Your task to perform on an android device: Go to accessibility settings Image 0: 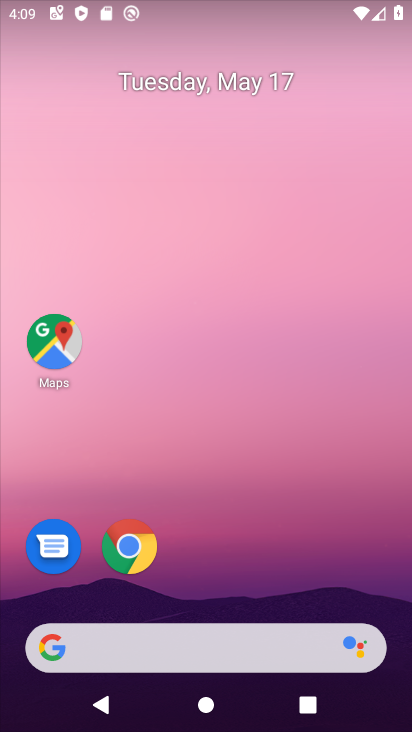
Step 0: drag from (212, 569) to (289, 205)
Your task to perform on an android device: Go to accessibility settings Image 1: 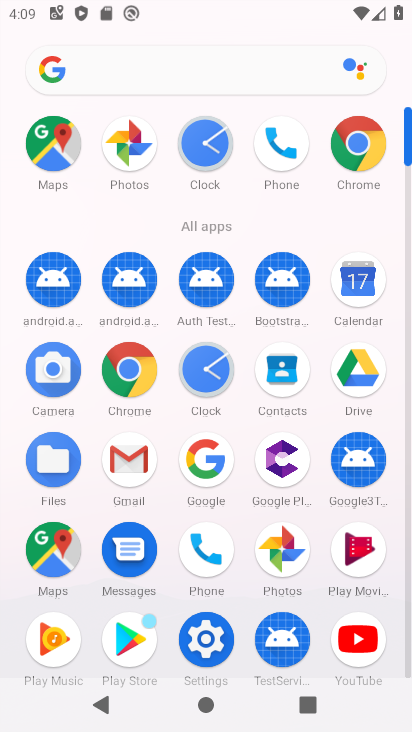
Step 1: click (218, 642)
Your task to perform on an android device: Go to accessibility settings Image 2: 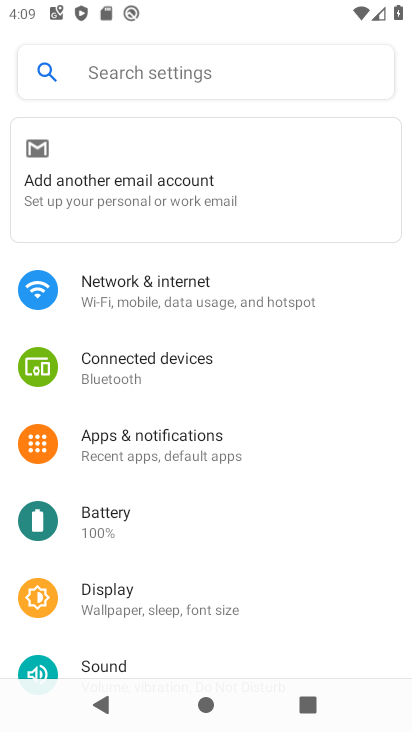
Step 2: drag from (216, 636) to (286, 237)
Your task to perform on an android device: Go to accessibility settings Image 3: 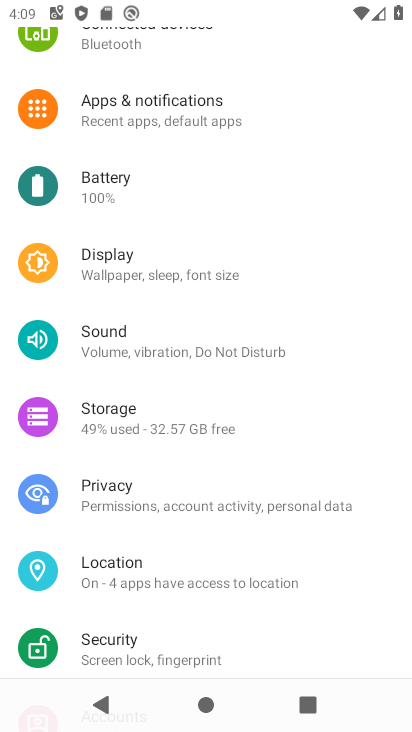
Step 3: drag from (203, 592) to (222, 368)
Your task to perform on an android device: Go to accessibility settings Image 4: 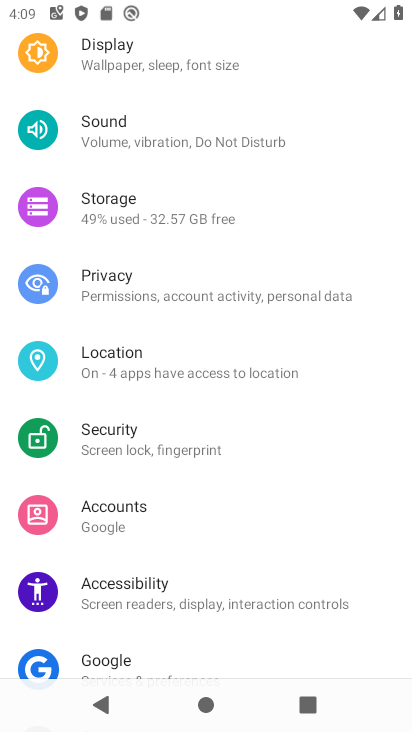
Step 4: click (186, 606)
Your task to perform on an android device: Go to accessibility settings Image 5: 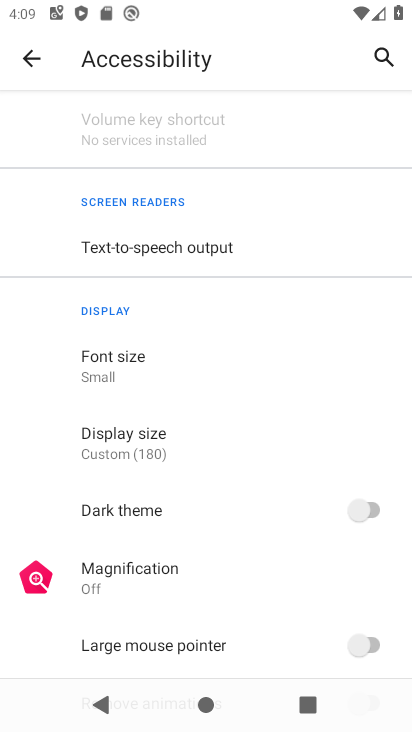
Step 5: task complete